Your task to perform on an android device: open device folders in google photos Image 0: 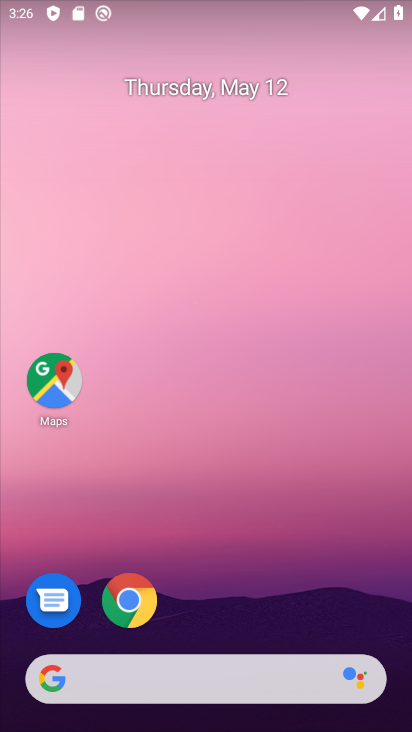
Step 0: drag from (227, 362) to (323, 93)
Your task to perform on an android device: open device folders in google photos Image 1: 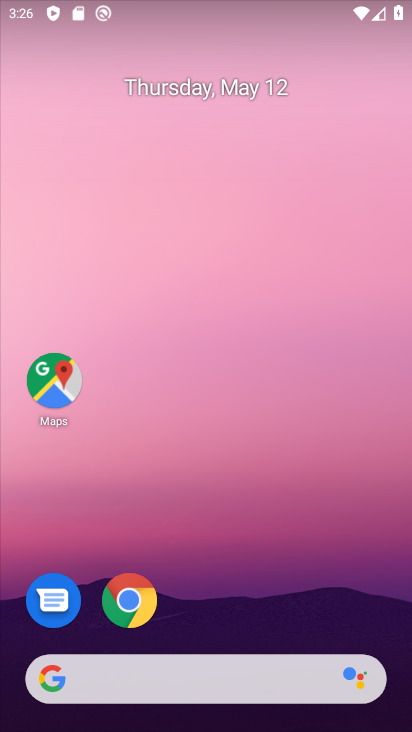
Step 1: drag from (218, 645) to (350, 105)
Your task to perform on an android device: open device folders in google photos Image 2: 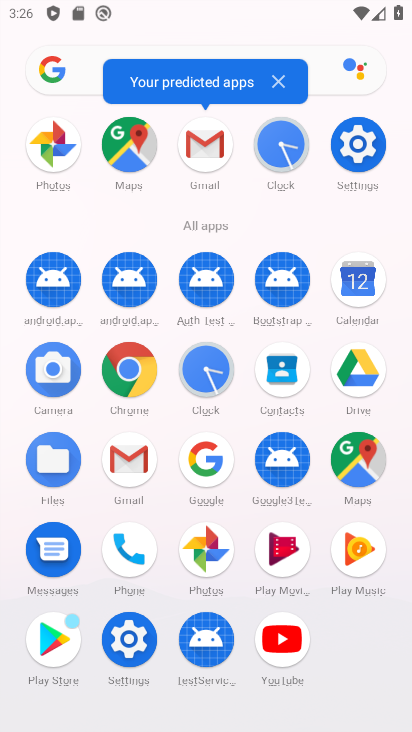
Step 2: click (57, 144)
Your task to perform on an android device: open device folders in google photos Image 3: 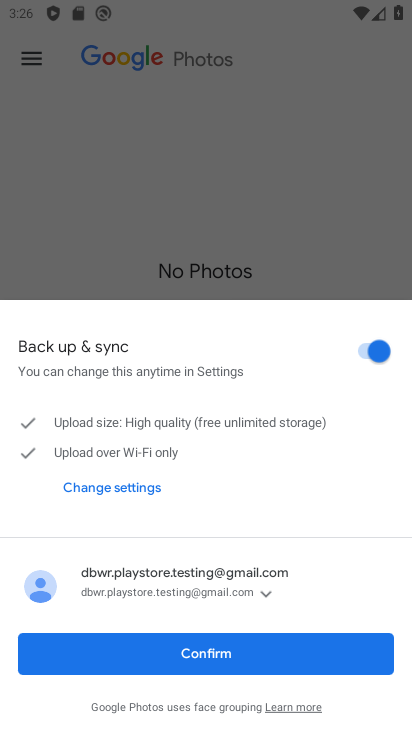
Step 3: click (158, 650)
Your task to perform on an android device: open device folders in google photos Image 4: 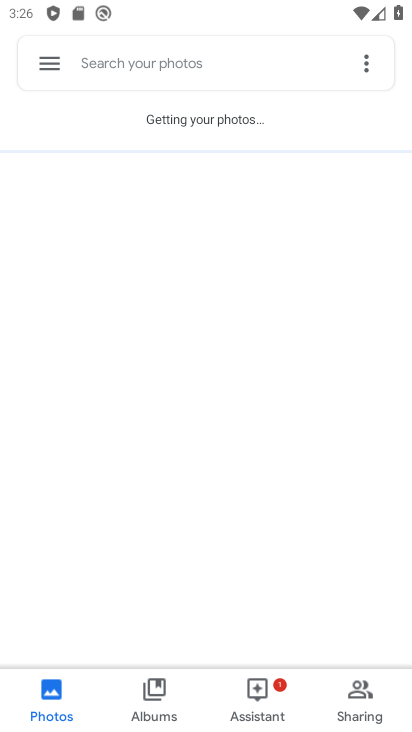
Step 4: click (55, 56)
Your task to perform on an android device: open device folders in google photos Image 5: 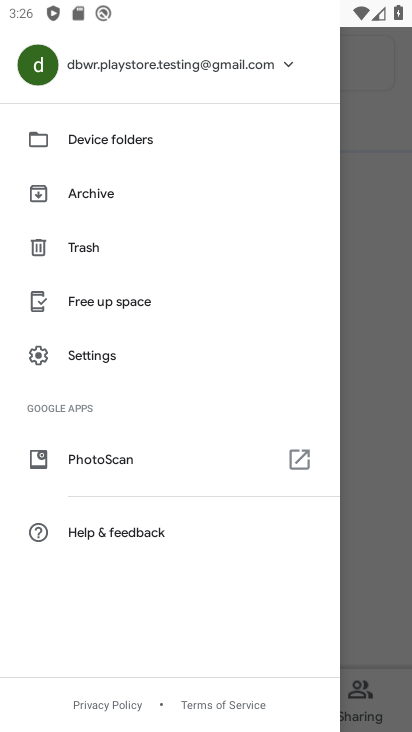
Step 5: click (87, 139)
Your task to perform on an android device: open device folders in google photos Image 6: 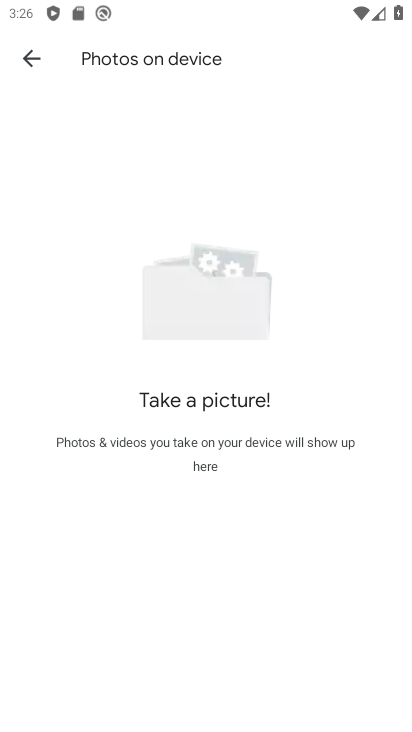
Step 6: task complete